Your task to perform on an android device: change keyboard looks Image 0: 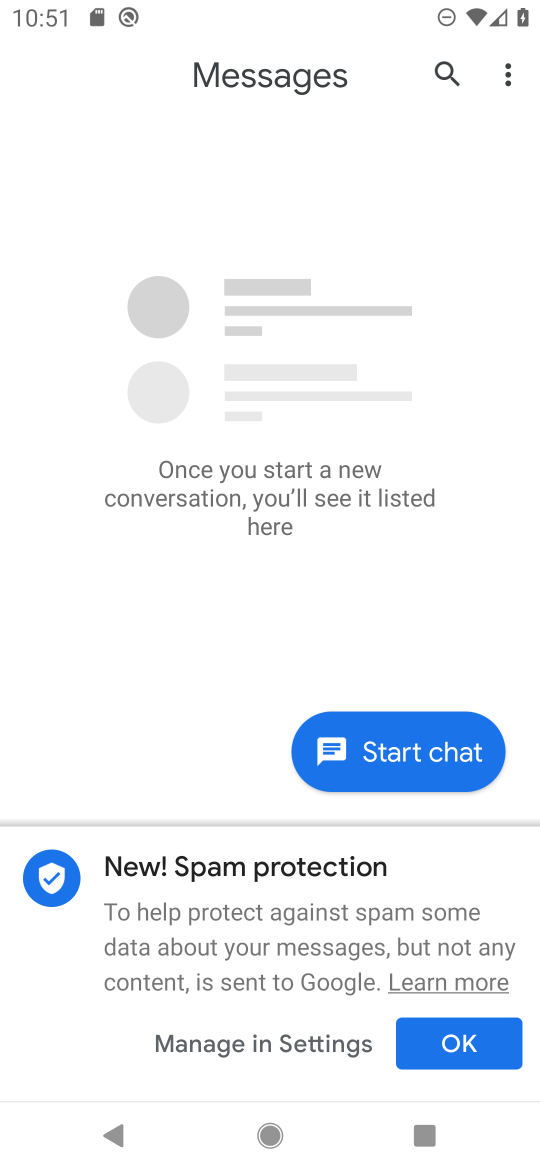
Step 0: press home button
Your task to perform on an android device: change keyboard looks Image 1: 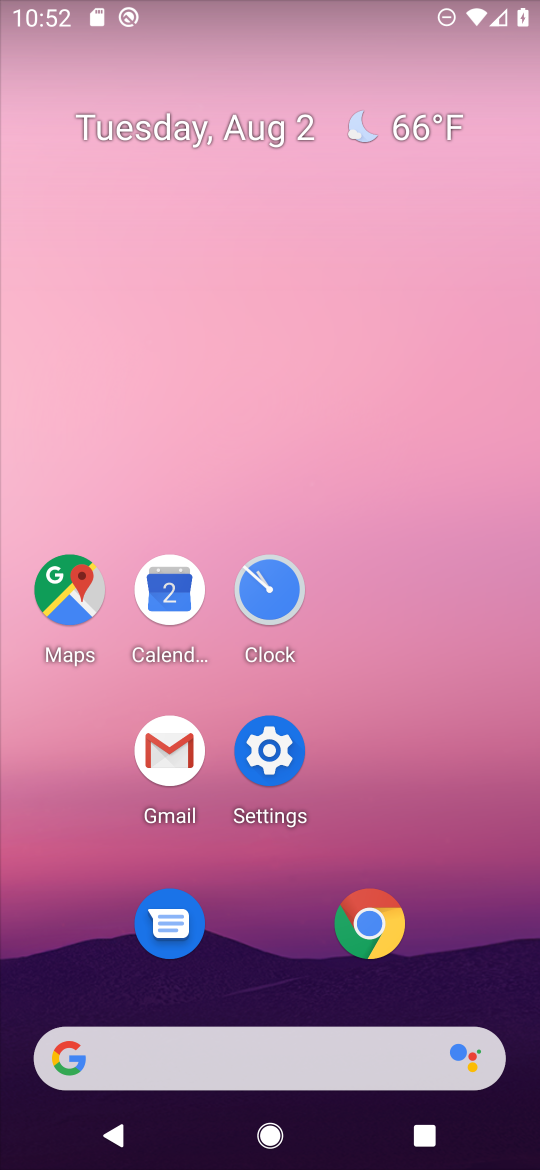
Step 1: click (261, 723)
Your task to perform on an android device: change keyboard looks Image 2: 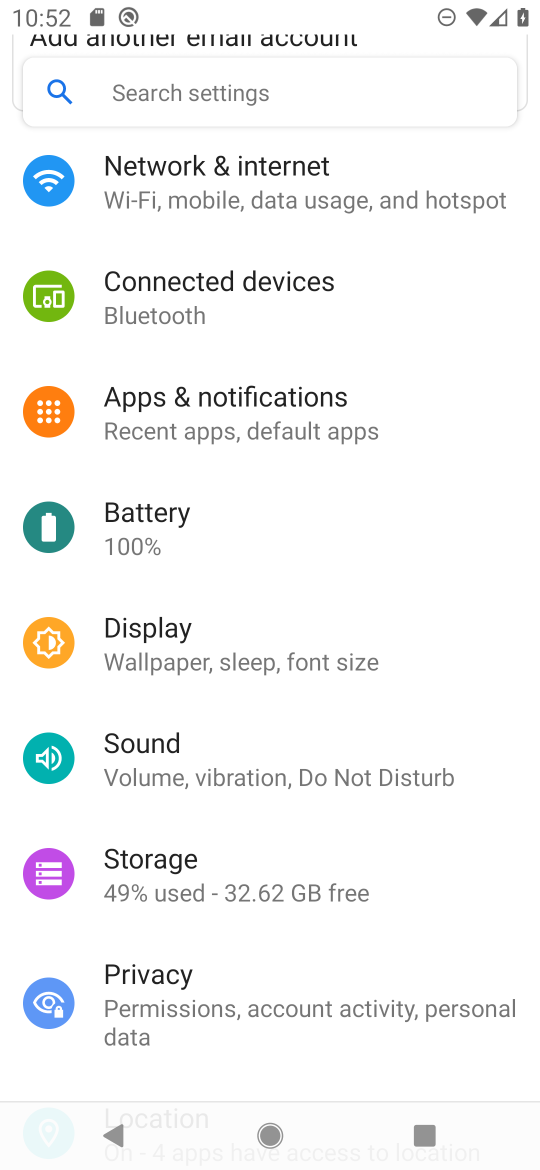
Step 2: drag from (353, 936) to (419, 409)
Your task to perform on an android device: change keyboard looks Image 3: 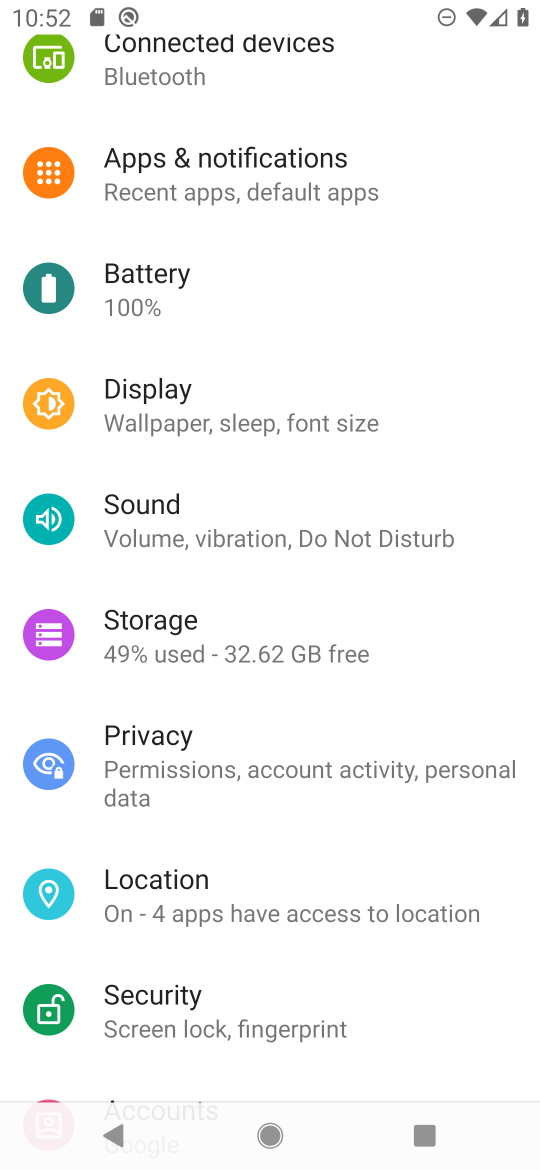
Step 3: drag from (364, 1051) to (337, 575)
Your task to perform on an android device: change keyboard looks Image 4: 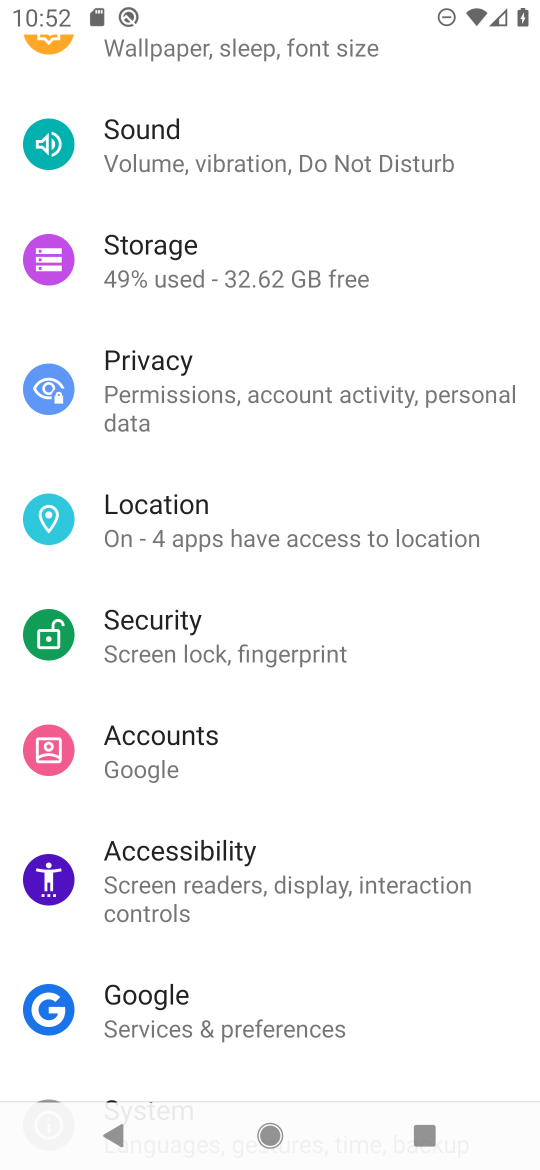
Step 4: drag from (385, 1019) to (420, 603)
Your task to perform on an android device: change keyboard looks Image 5: 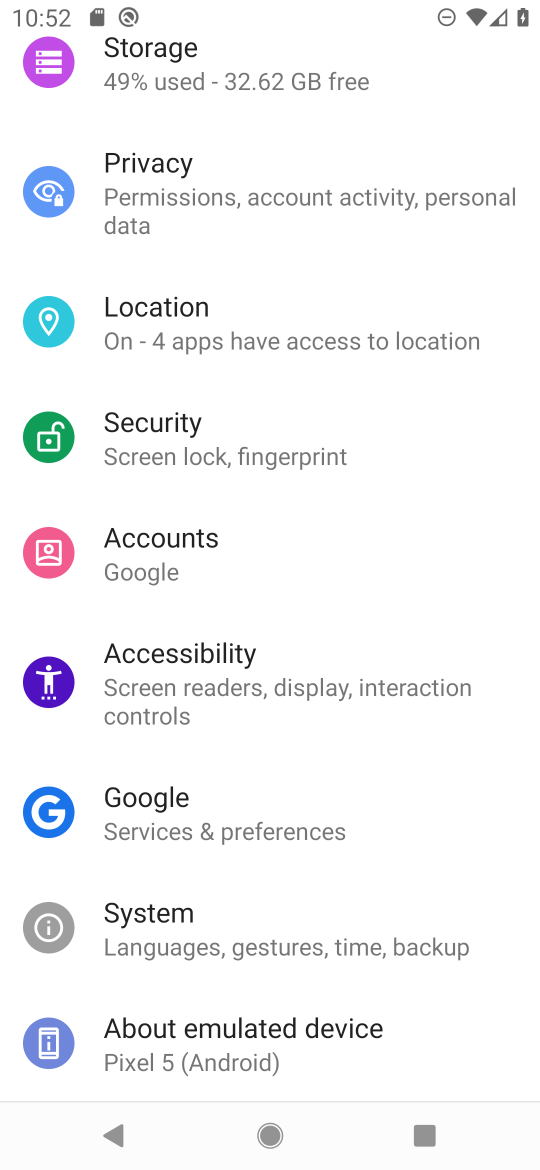
Step 5: click (155, 913)
Your task to perform on an android device: change keyboard looks Image 6: 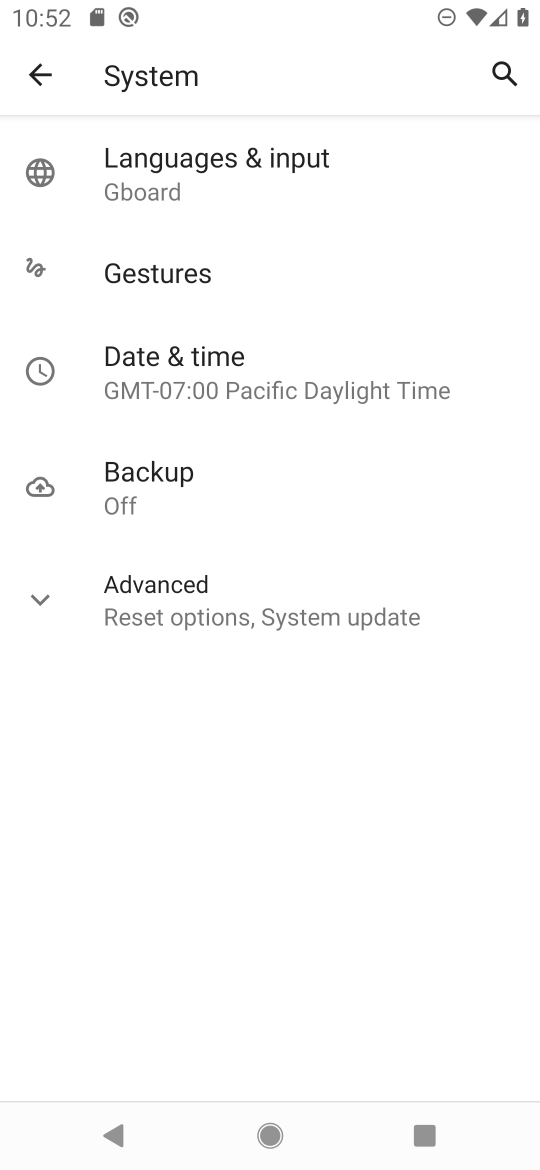
Step 6: click (160, 157)
Your task to perform on an android device: change keyboard looks Image 7: 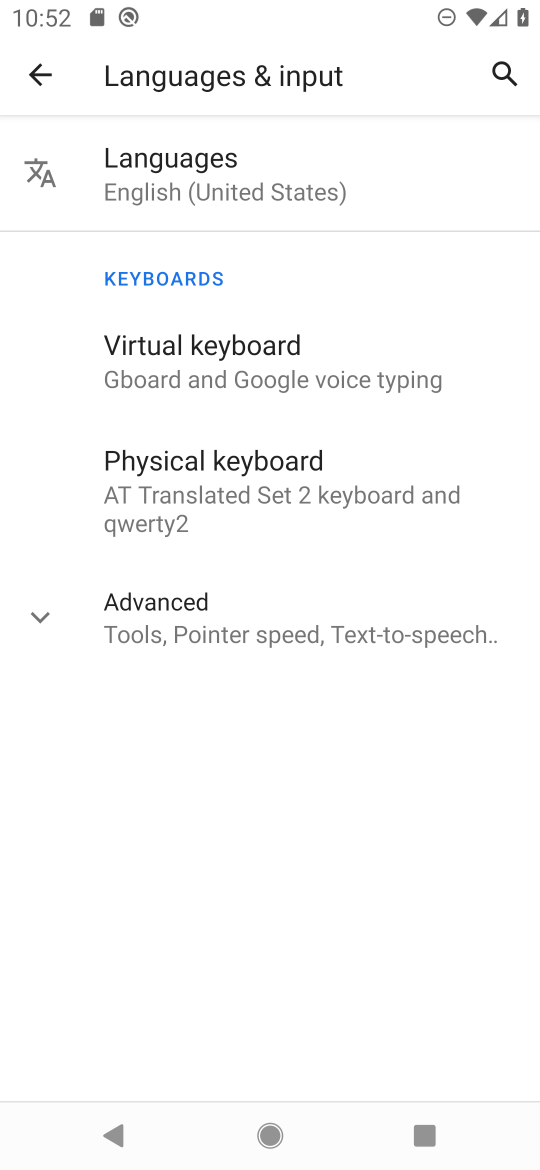
Step 7: click (186, 352)
Your task to perform on an android device: change keyboard looks Image 8: 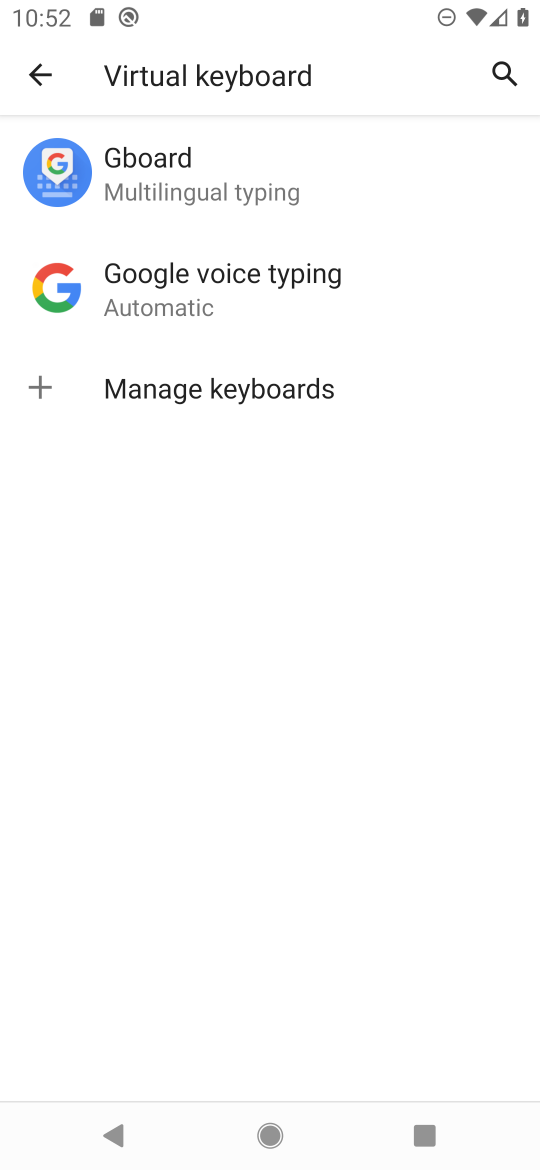
Step 8: click (170, 153)
Your task to perform on an android device: change keyboard looks Image 9: 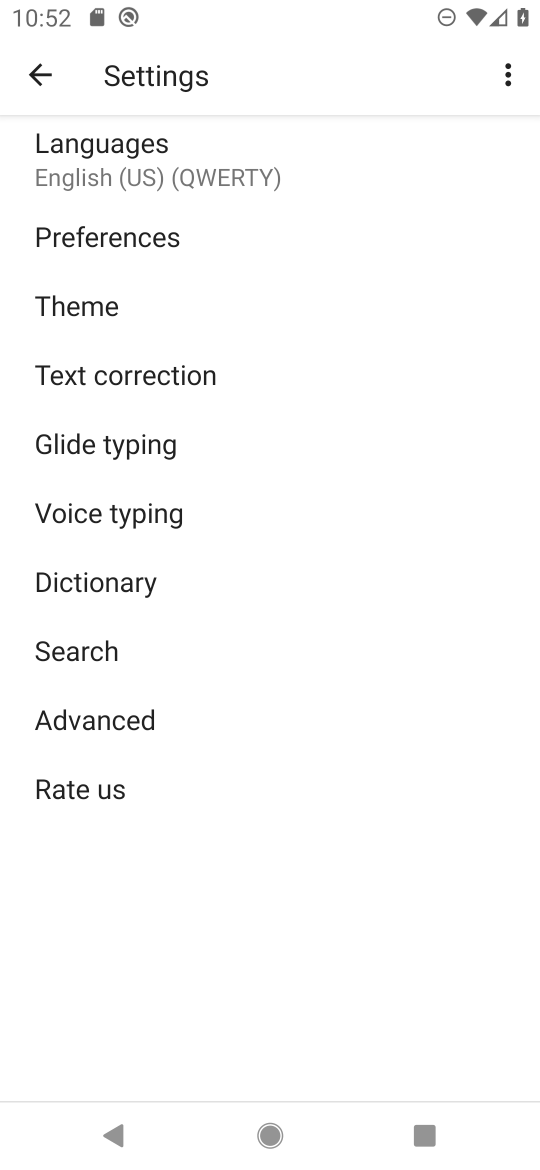
Step 9: click (43, 295)
Your task to perform on an android device: change keyboard looks Image 10: 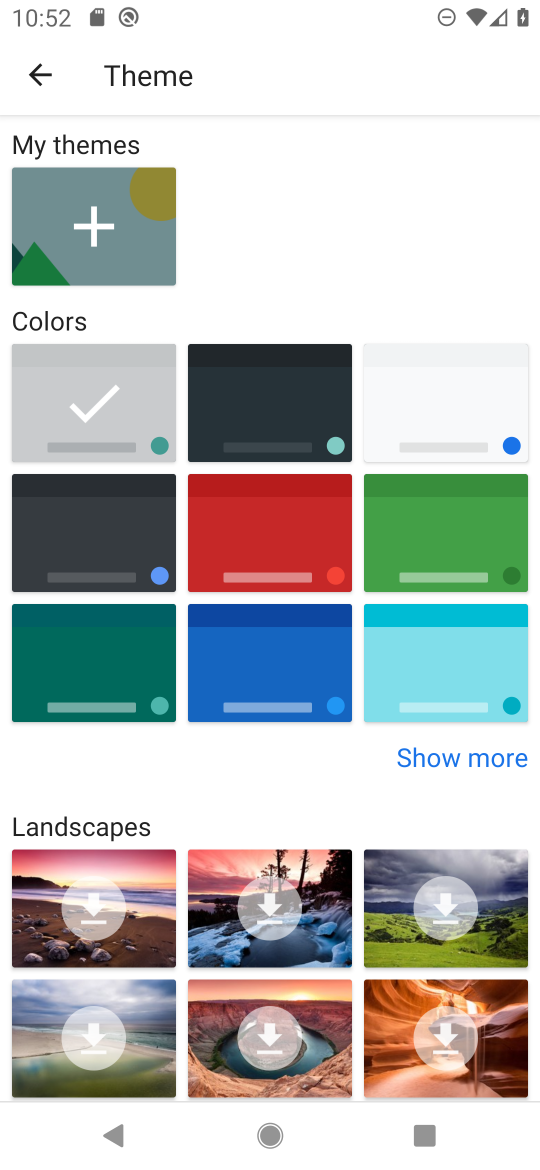
Step 10: click (236, 527)
Your task to perform on an android device: change keyboard looks Image 11: 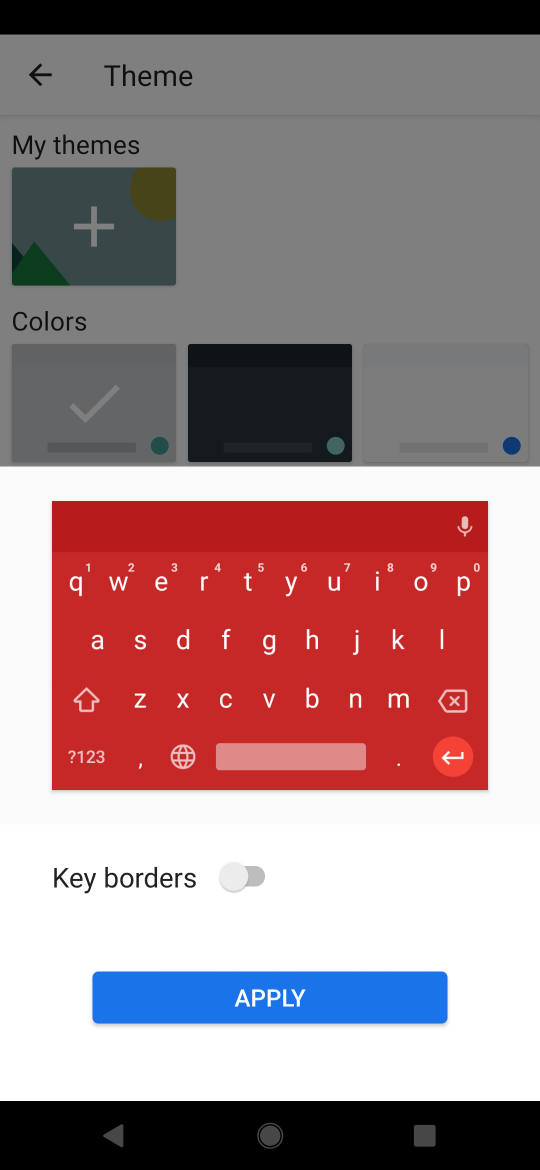
Step 11: click (255, 871)
Your task to perform on an android device: change keyboard looks Image 12: 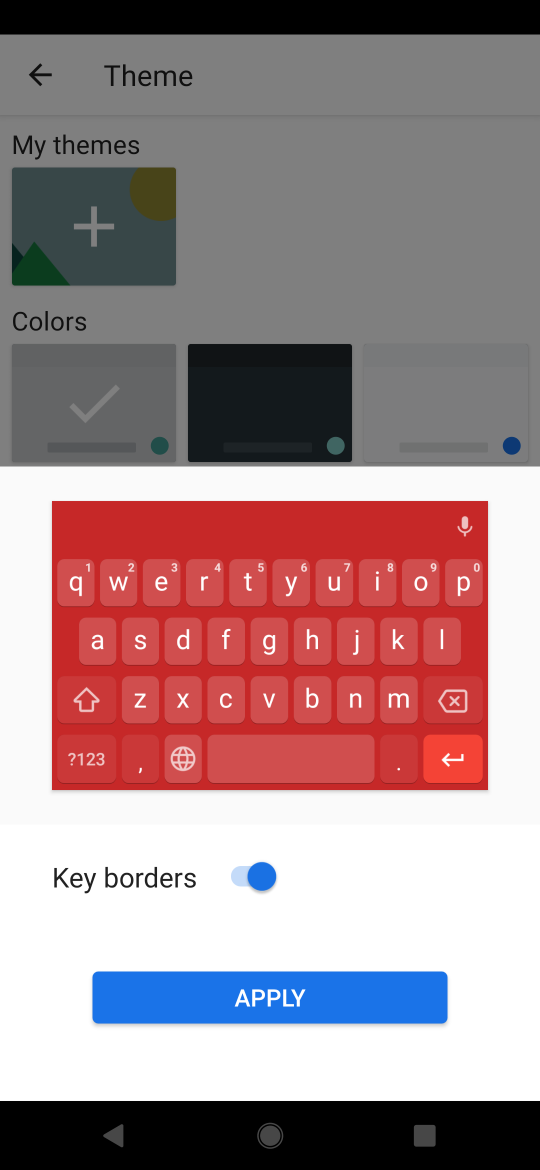
Step 12: click (272, 1000)
Your task to perform on an android device: change keyboard looks Image 13: 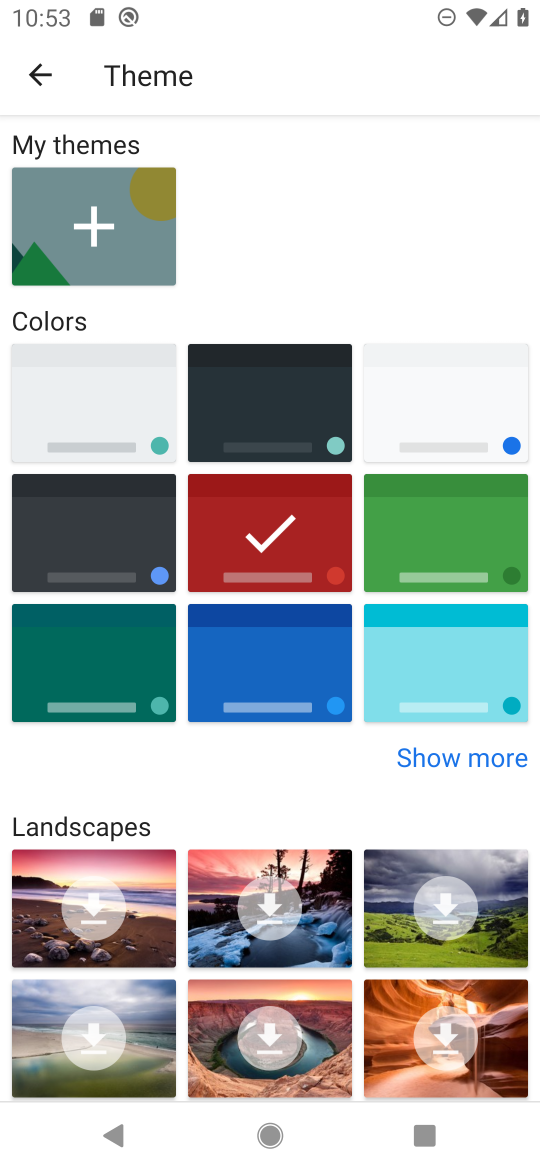
Step 13: task complete